Your task to perform on an android device: open app "Roku - Official Remote Control" (install if not already installed) Image 0: 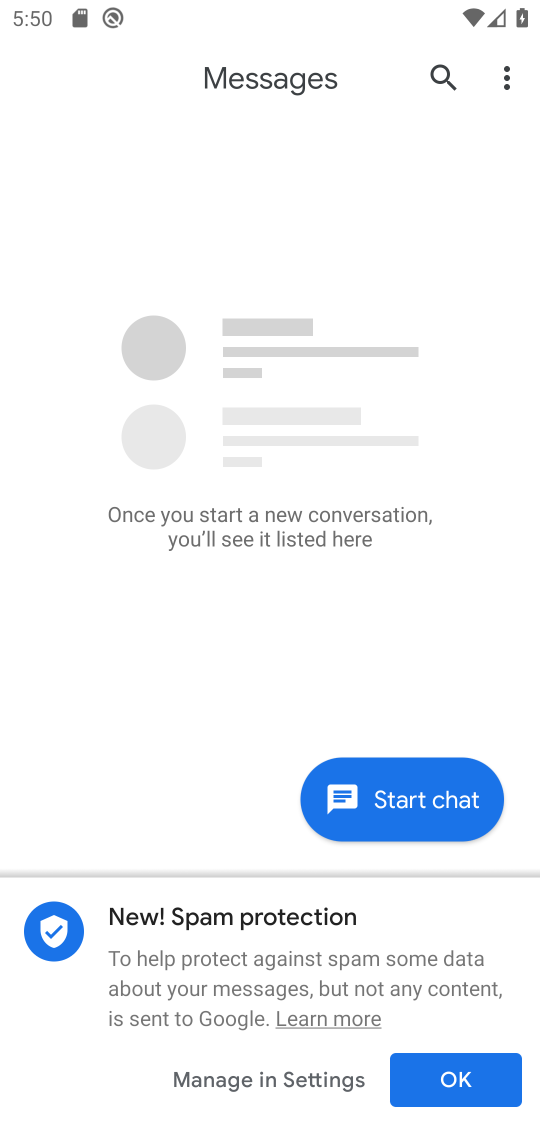
Step 0: press home button
Your task to perform on an android device: open app "Roku - Official Remote Control" (install if not already installed) Image 1: 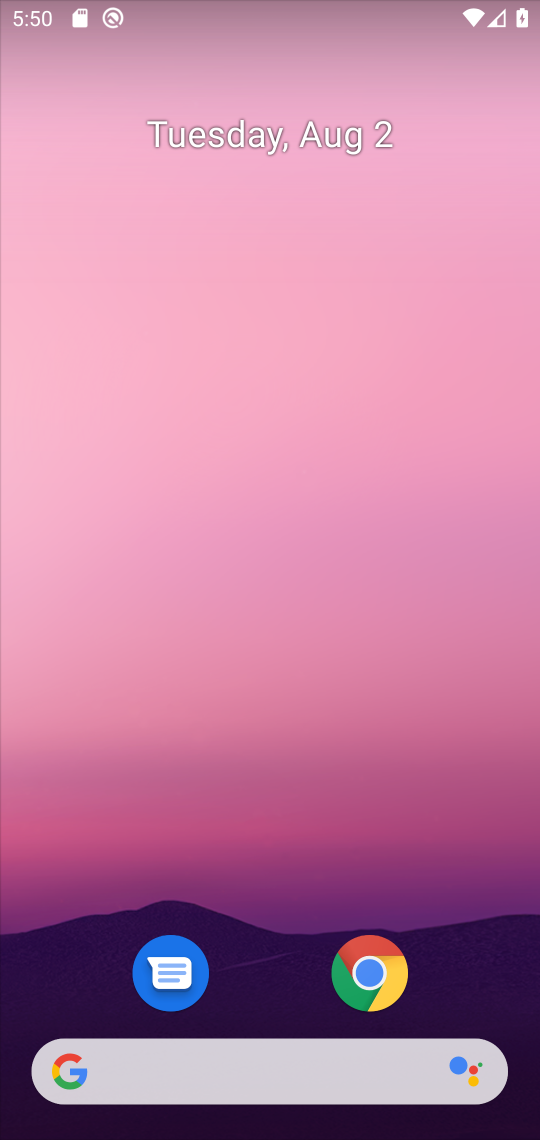
Step 1: drag from (269, 959) to (332, 487)
Your task to perform on an android device: open app "Roku - Official Remote Control" (install if not already installed) Image 2: 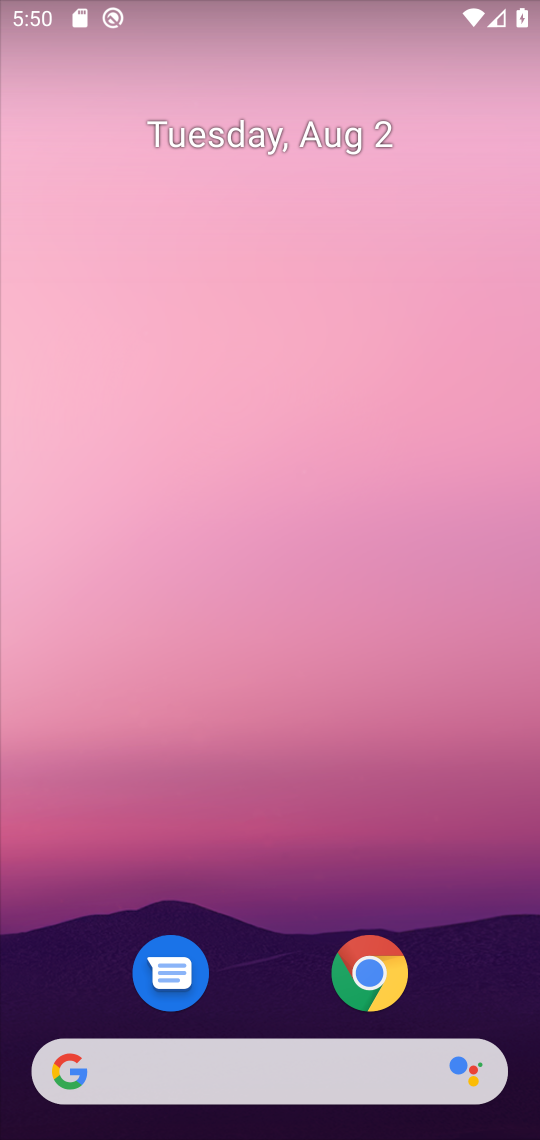
Step 2: drag from (251, 903) to (250, 192)
Your task to perform on an android device: open app "Roku - Official Remote Control" (install if not already installed) Image 3: 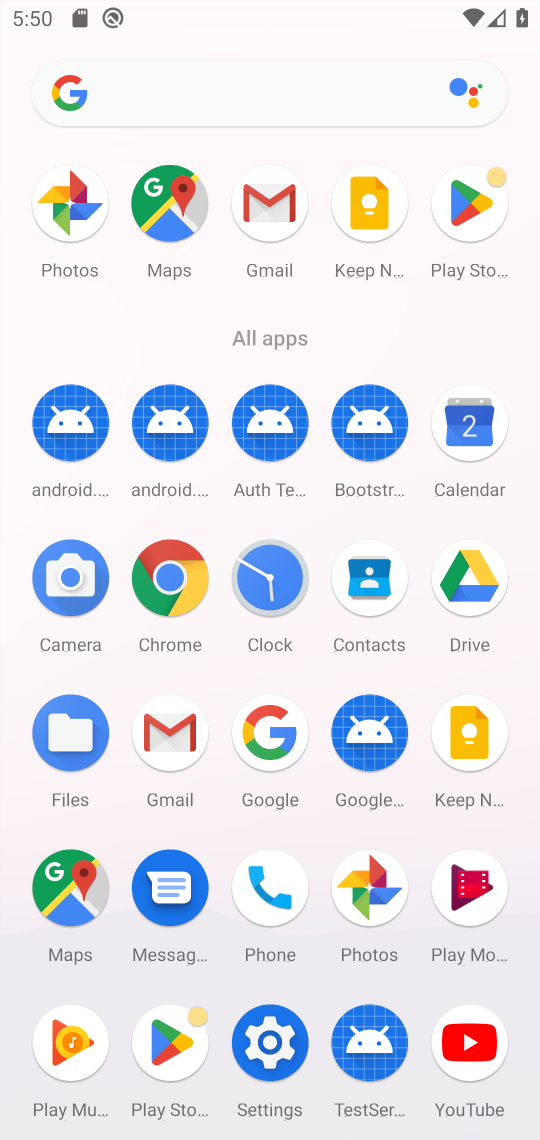
Step 3: click (468, 197)
Your task to perform on an android device: open app "Roku - Official Remote Control" (install if not already installed) Image 4: 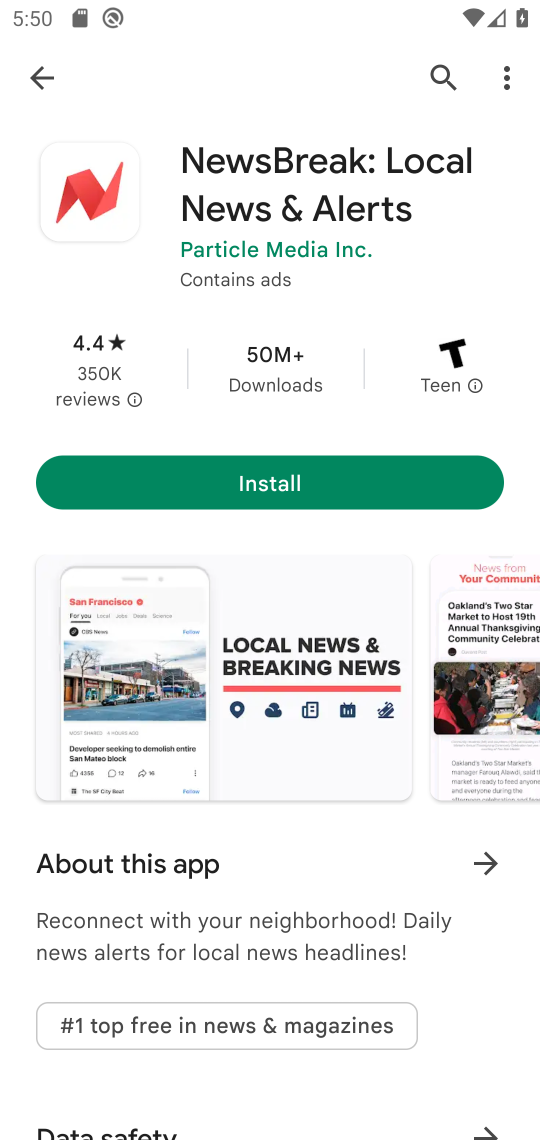
Step 4: click (442, 77)
Your task to perform on an android device: open app "Roku - Official Remote Control" (install if not already installed) Image 5: 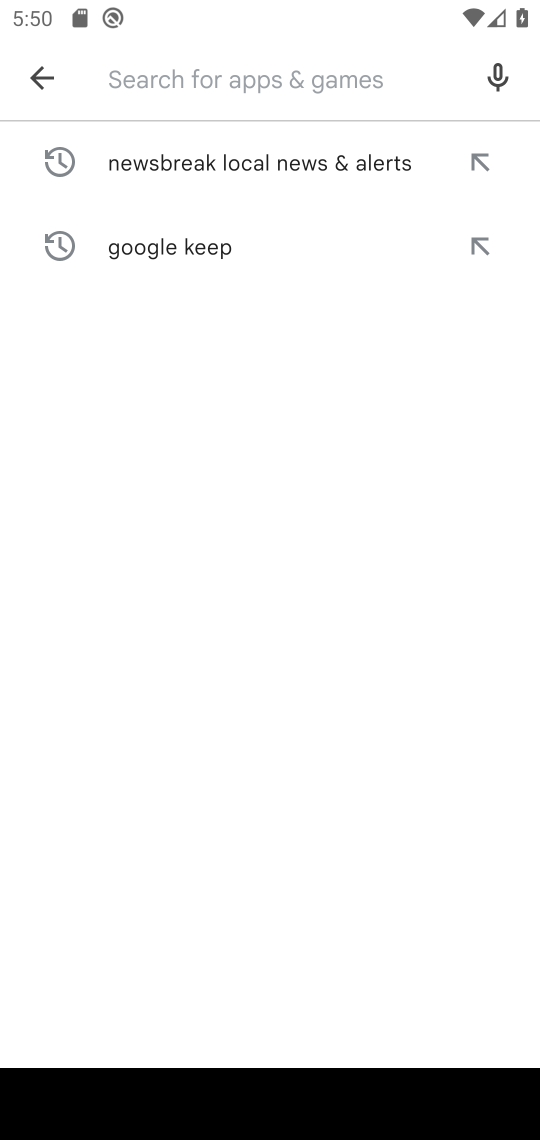
Step 5: type "roku - official remote control"
Your task to perform on an android device: open app "Roku - Official Remote Control" (install if not already installed) Image 6: 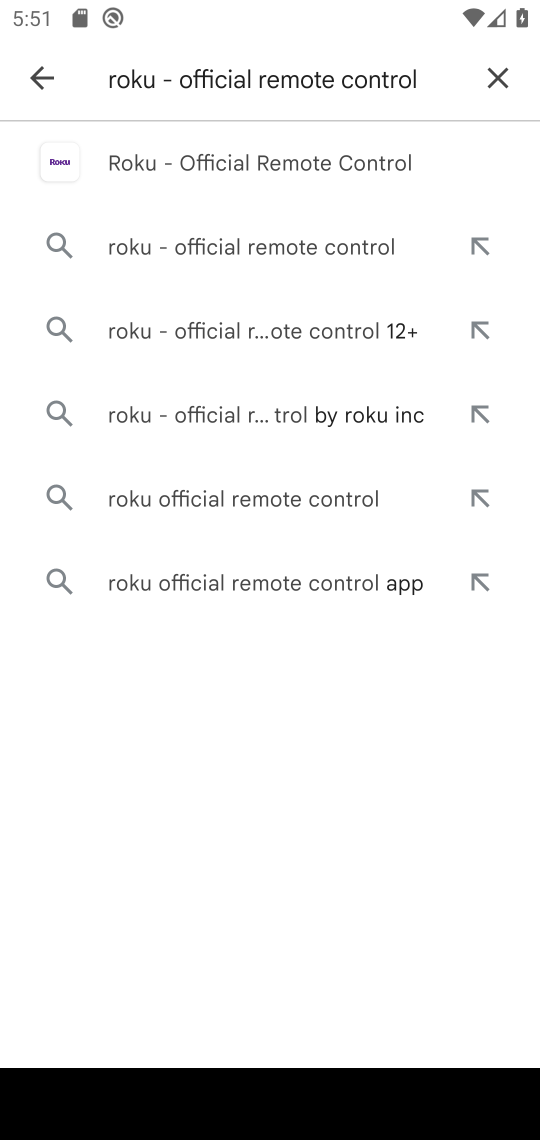
Step 6: click (311, 171)
Your task to perform on an android device: open app "Roku - Official Remote Control" (install if not already installed) Image 7: 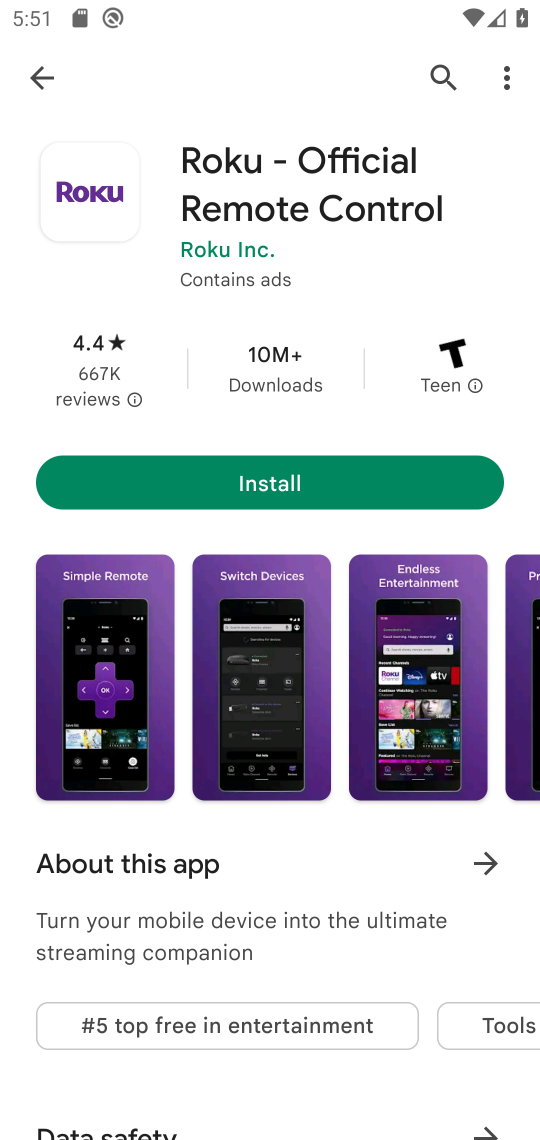
Step 7: click (314, 493)
Your task to perform on an android device: open app "Roku - Official Remote Control" (install if not already installed) Image 8: 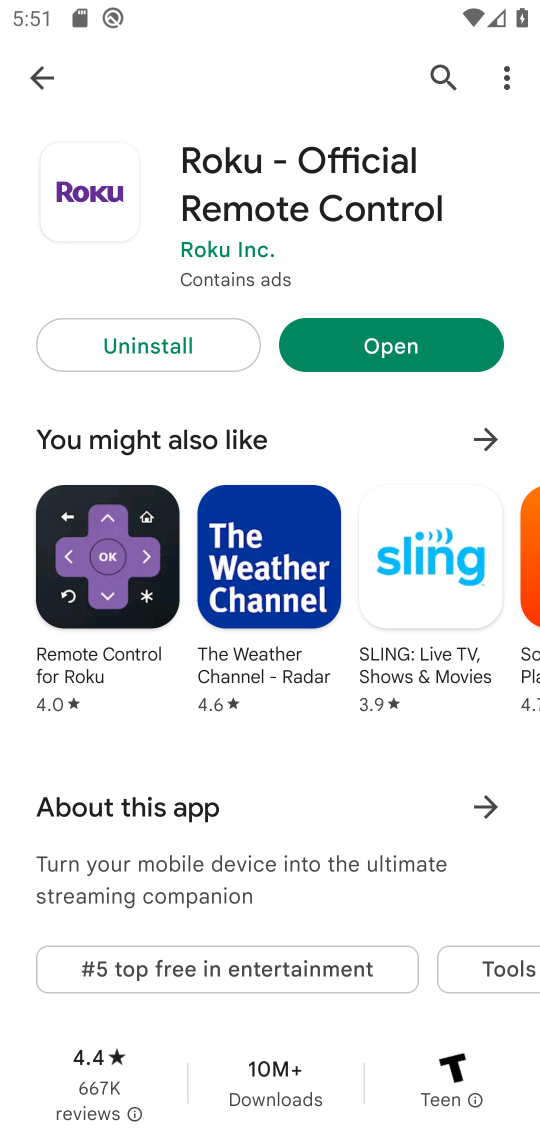
Step 8: click (382, 349)
Your task to perform on an android device: open app "Roku - Official Remote Control" (install if not already installed) Image 9: 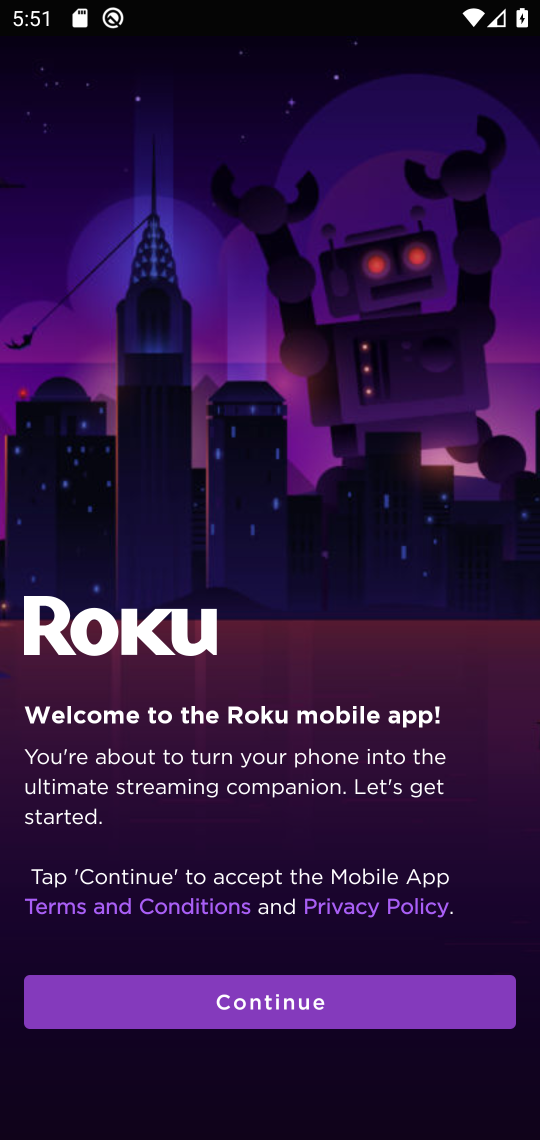
Step 9: task complete